Your task to perform on an android device: change the clock display to show seconds Image 0: 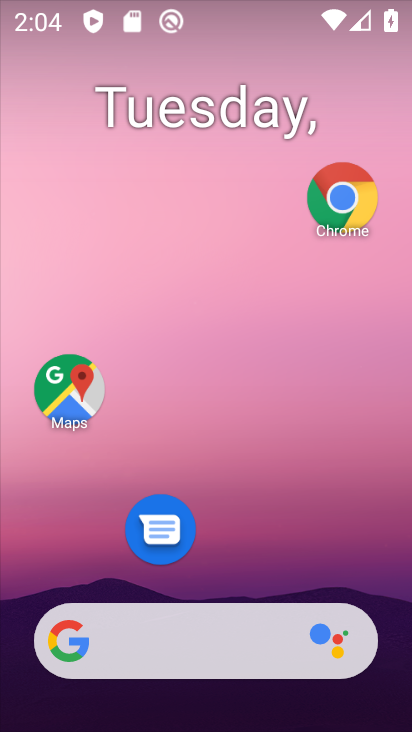
Step 0: drag from (195, 591) to (245, 138)
Your task to perform on an android device: change the clock display to show seconds Image 1: 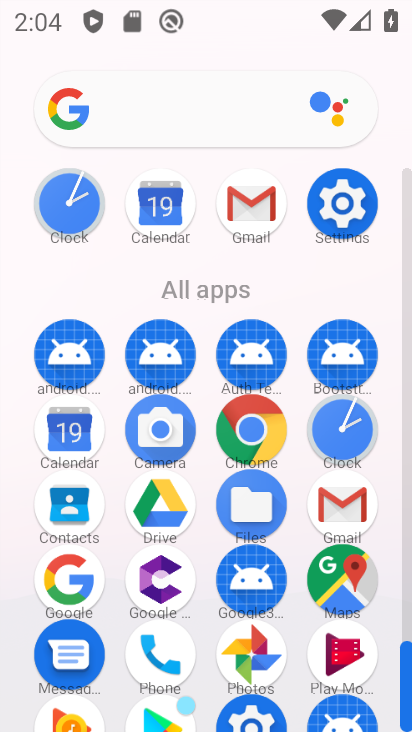
Step 1: click (350, 419)
Your task to perform on an android device: change the clock display to show seconds Image 2: 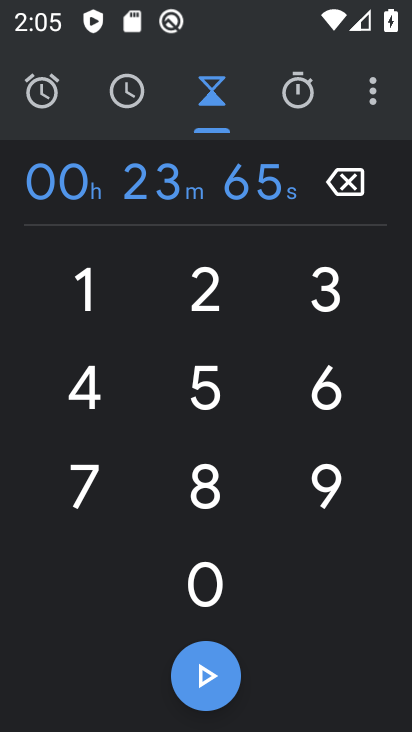
Step 2: click (369, 96)
Your task to perform on an android device: change the clock display to show seconds Image 3: 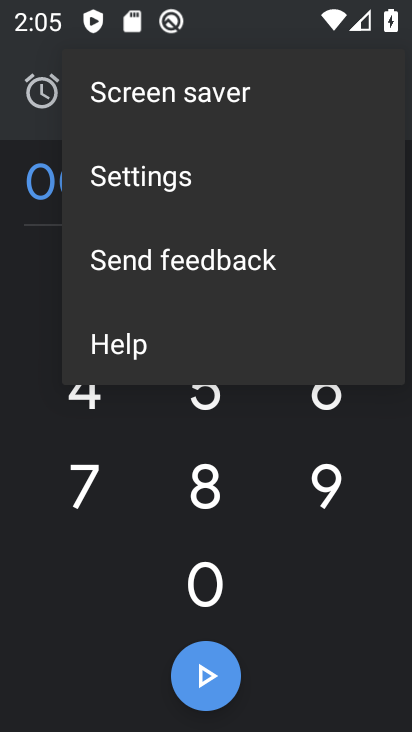
Step 3: click (157, 171)
Your task to perform on an android device: change the clock display to show seconds Image 4: 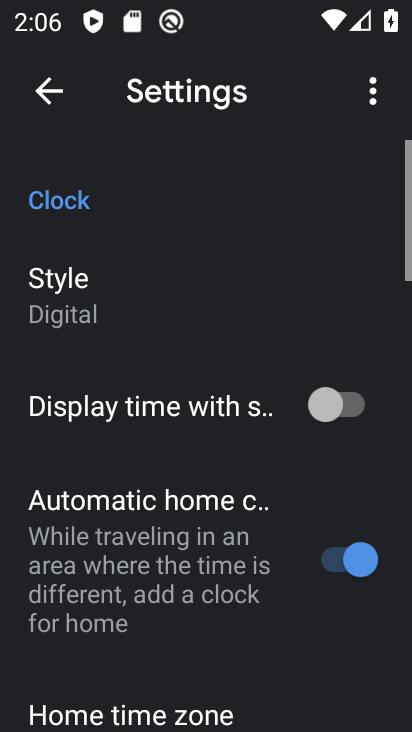
Step 4: drag from (143, 590) to (154, 675)
Your task to perform on an android device: change the clock display to show seconds Image 5: 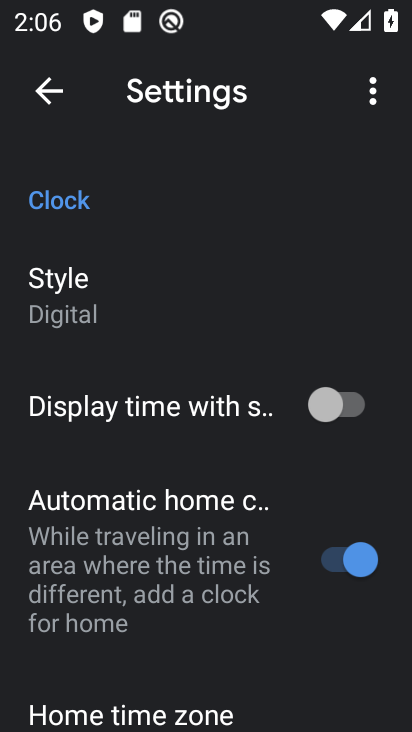
Step 5: click (121, 298)
Your task to perform on an android device: change the clock display to show seconds Image 6: 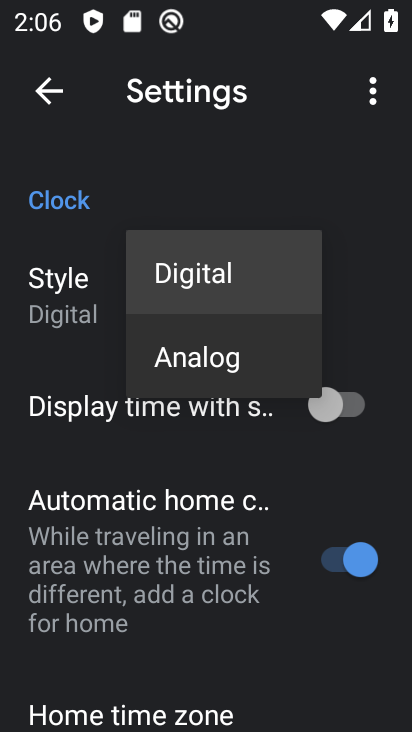
Step 6: click (192, 280)
Your task to perform on an android device: change the clock display to show seconds Image 7: 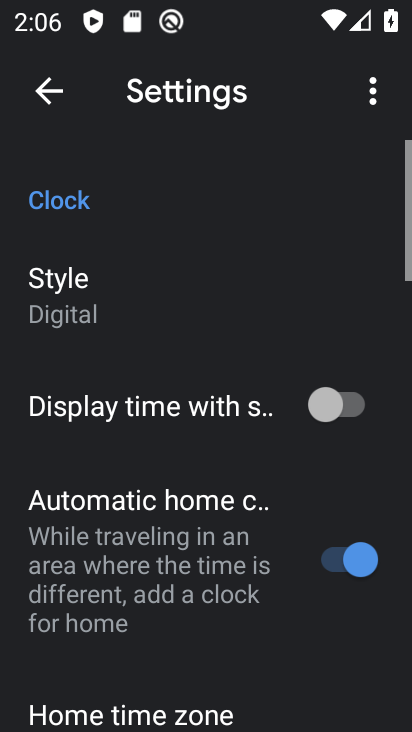
Step 7: click (344, 401)
Your task to perform on an android device: change the clock display to show seconds Image 8: 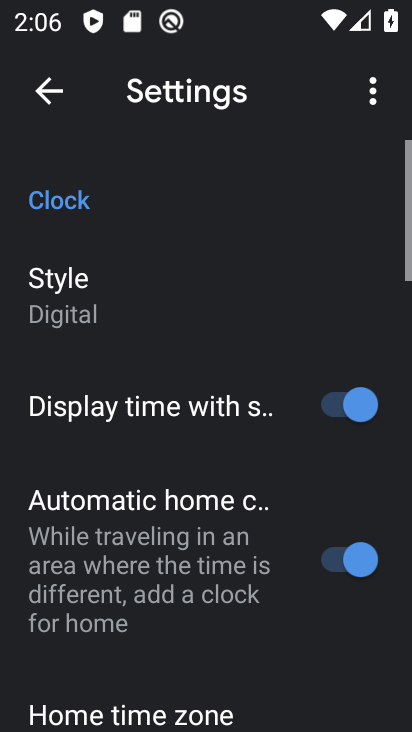
Step 8: task complete